Your task to perform on an android device: Show me popular games on the Play Store Image 0: 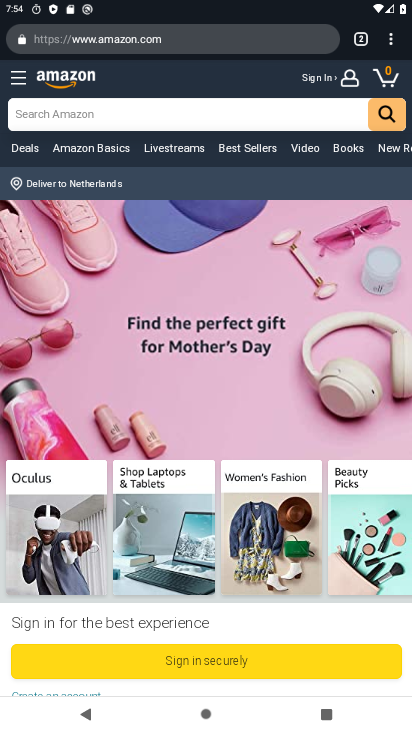
Step 0: press home button
Your task to perform on an android device: Show me popular games on the Play Store Image 1: 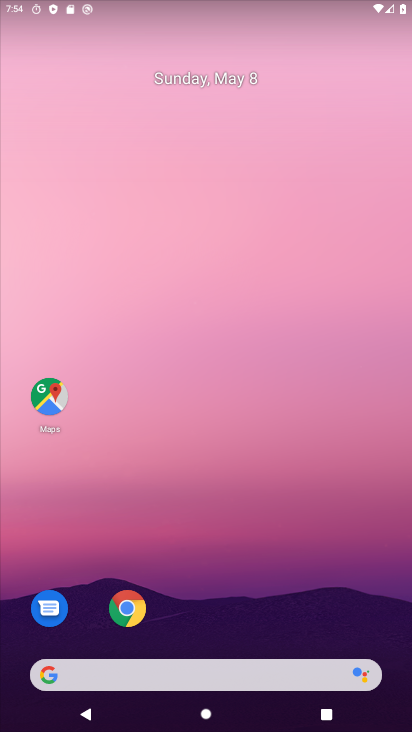
Step 1: drag from (303, 565) to (319, 182)
Your task to perform on an android device: Show me popular games on the Play Store Image 2: 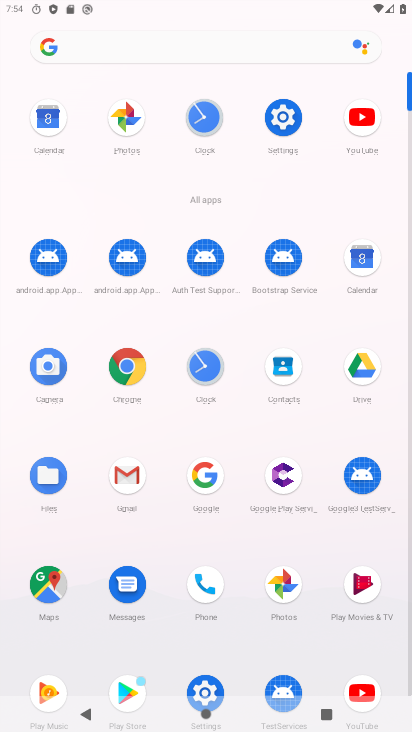
Step 2: drag from (268, 625) to (315, 233)
Your task to perform on an android device: Show me popular games on the Play Store Image 3: 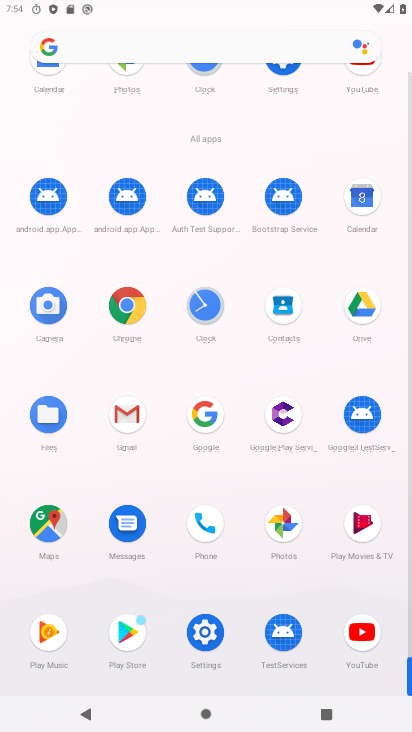
Step 3: click (127, 608)
Your task to perform on an android device: Show me popular games on the Play Store Image 4: 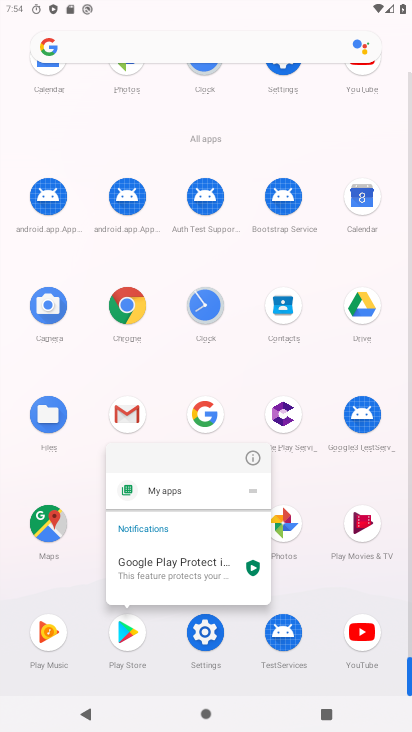
Step 4: click (129, 647)
Your task to perform on an android device: Show me popular games on the Play Store Image 5: 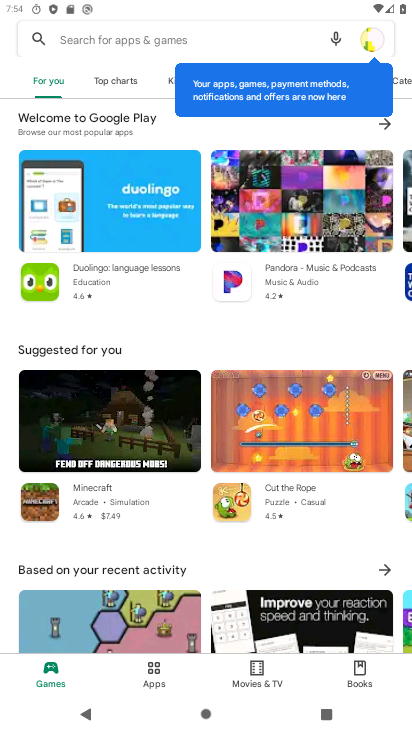
Step 5: drag from (153, 585) to (228, 223)
Your task to perform on an android device: Show me popular games on the Play Store Image 6: 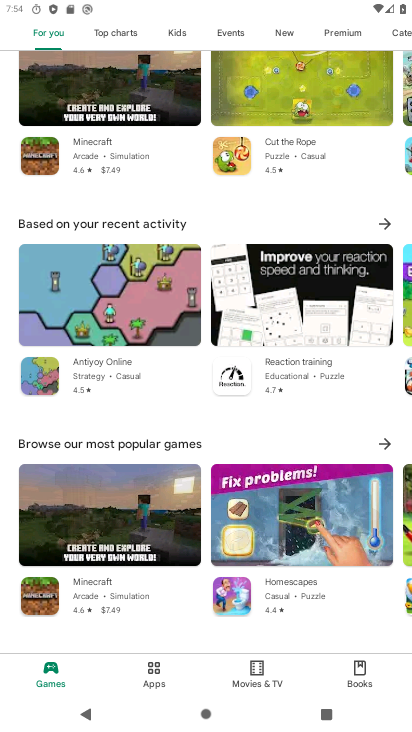
Step 6: click (380, 447)
Your task to perform on an android device: Show me popular games on the Play Store Image 7: 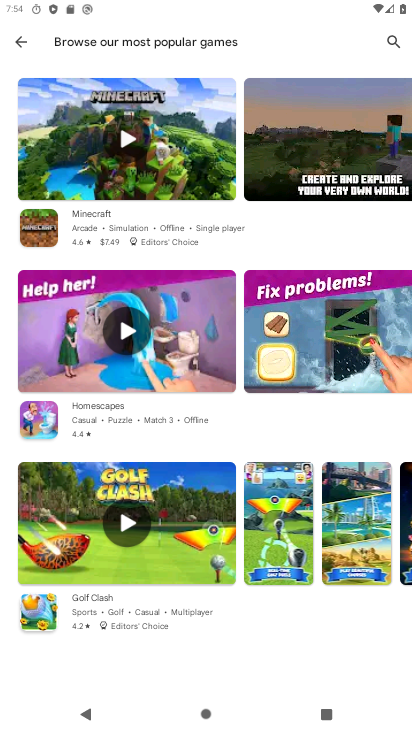
Step 7: task complete